Your task to perform on an android device: turn pop-ups on in chrome Image 0: 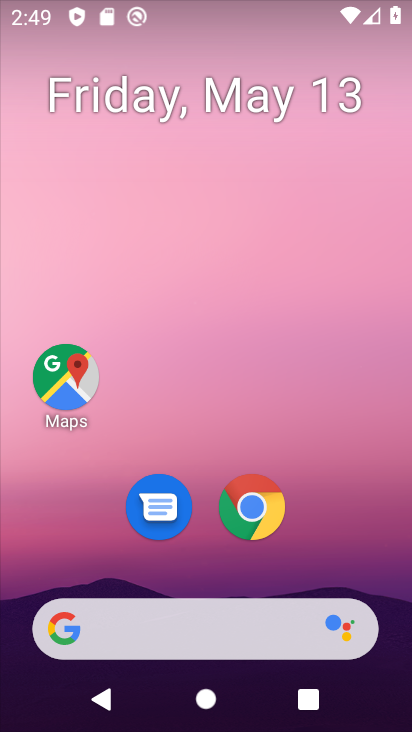
Step 0: click (269, 511)
Your task to perform on an android device: turn pop-ups on in chrome Image 1: 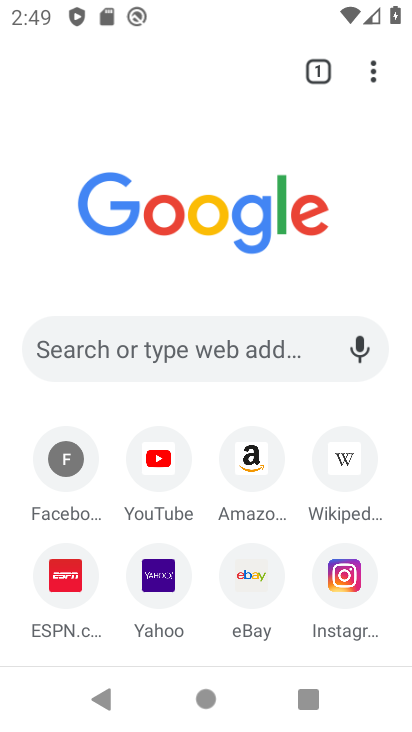
Step 1: click (364, 59)
Your task to perform on an android device: turn pop-ups on in chrome Image 2: 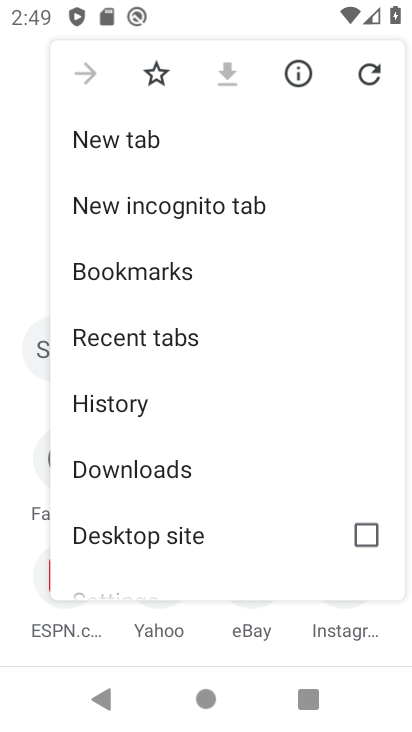
Step 2: drag from (139, 435) to (111, 71)
Your task to perform on an android device: turn pop-ups on in chrome Image 3: 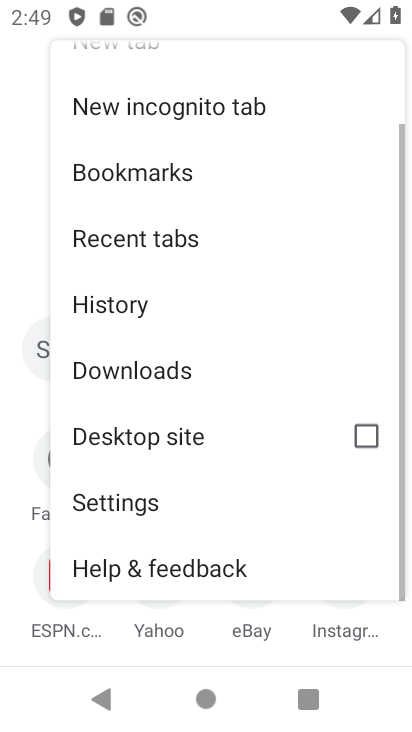
Step 3: click (158, 500)
Your task to perform on an android device: turn pop-ups on in chrome Image 4: 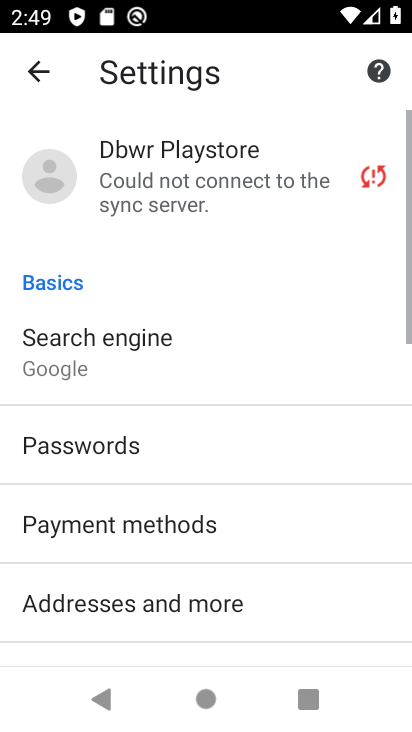
Step 4: drag from (173, 409) to (122, 98)
Your task to perform on an android device: turn pop-ups on in chrome Image 5: 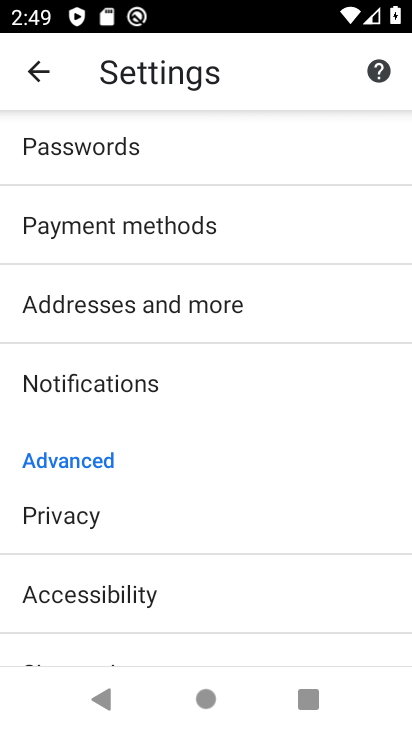
Step 5: drag from (152, 533) to (136, 154)
Your task to perform on an android device: turn pop-ups on in chrome Image 6: 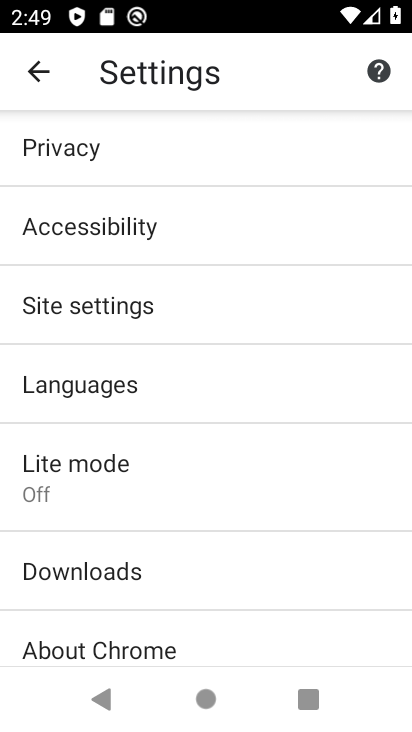
Step 6: click (119, 316)
Your task to perform on an android device: turn pop-ups on in chrome Image 7: 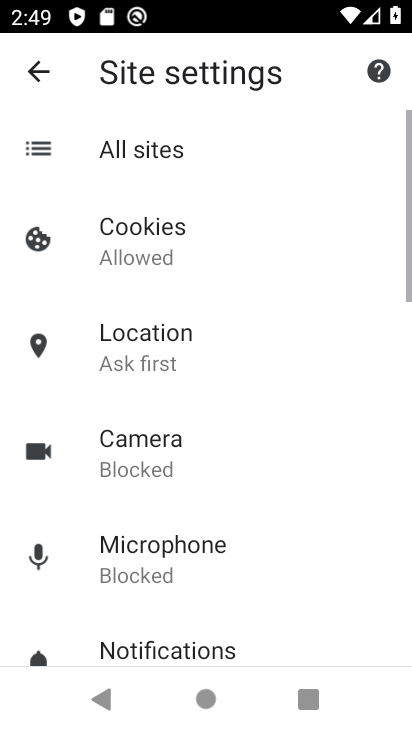
Step 7: drag from (147, 583) to (144, 189)
Your task to perform on an android device: turn pop-ups on in chrome Image 8: 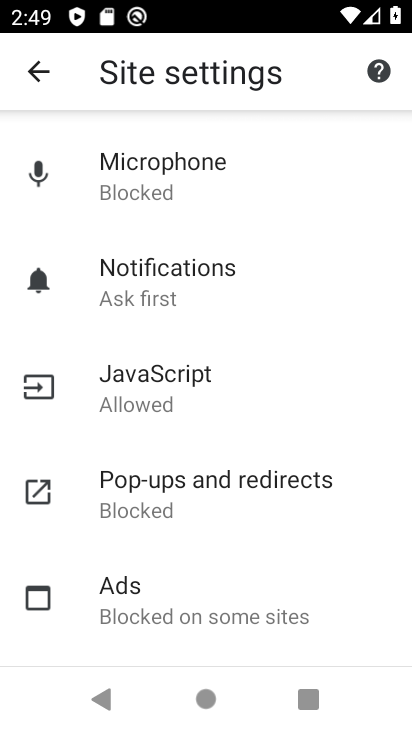
Step 8: click (137, 487)
Your task to perform on an android device: turn pop-ups on in chrome Image 9: 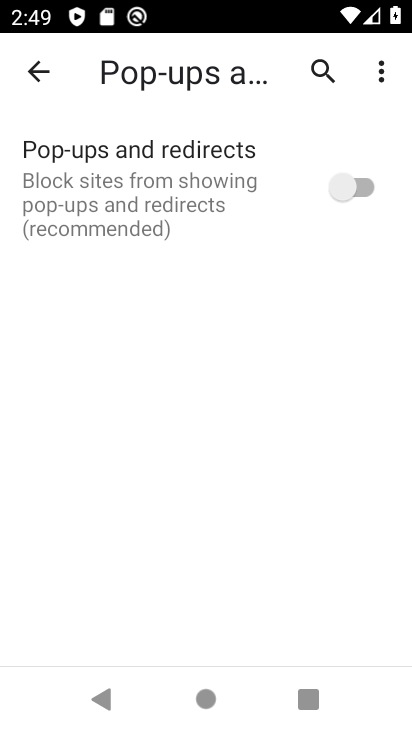
Step 9: click (304, 185)
Your task to perform on an android device: turn pop-ups on in chrome Image 10: 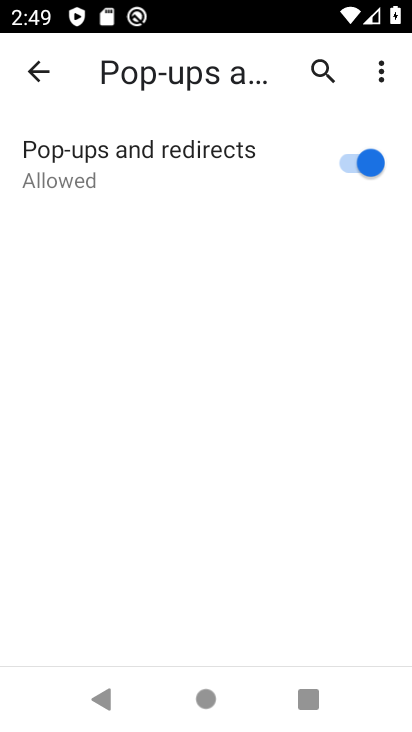
Step 10: task complete